Your task to perform on an android device: Open eBay Image 0: 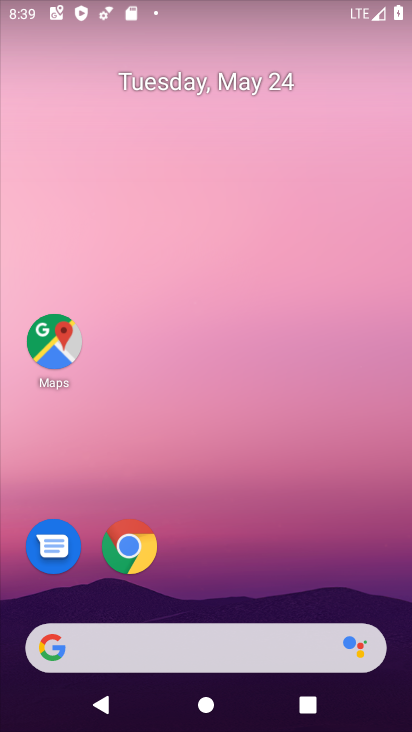
Step 0: click (243, 653)
Your task to perform on an android device: Open eBay Image 1: 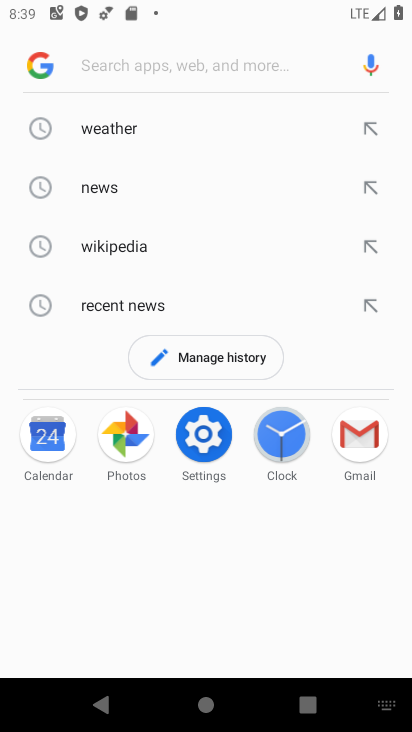
Step 1: type "ebay"
Your task to perform on an android device: Open eBay Image 2: 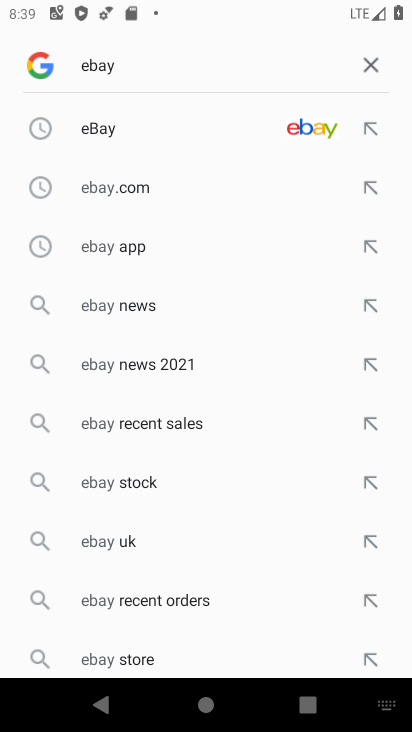
Step 2: click (108, 118)
Your task to perform on an android device: Open eBay Image 3: 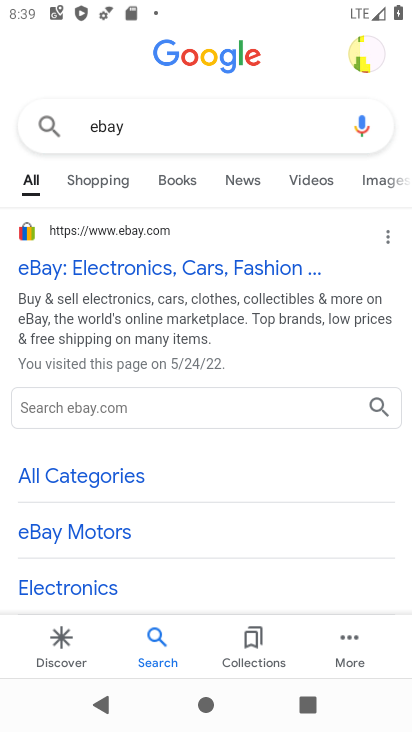
Step 3: click (49, 262)
Your task to perform on an android device: Open eBay Image 4: 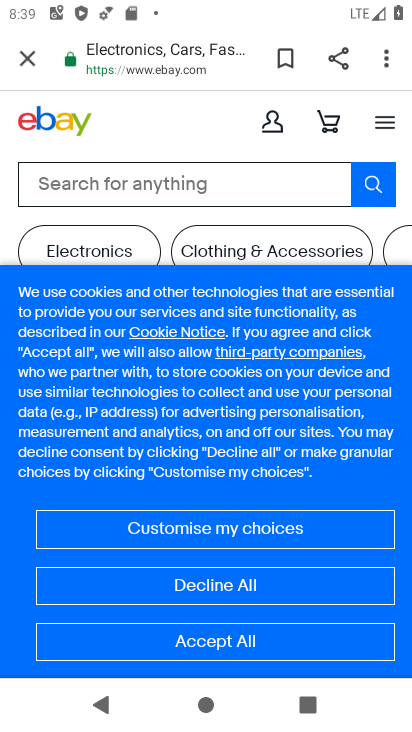
Step 4: task complete